Your task to perform on an android device: change text size in settings app Image 0: 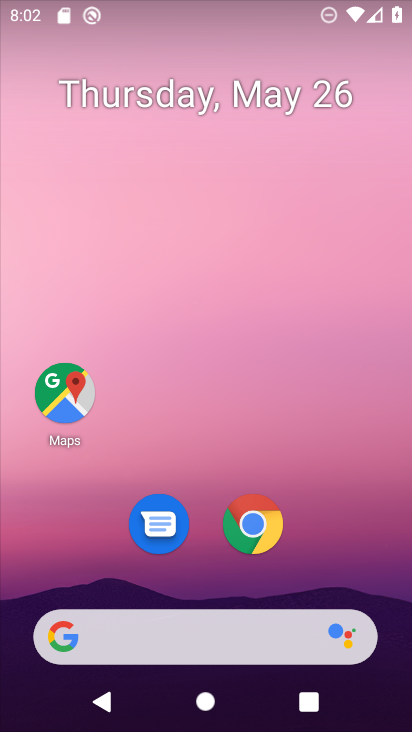
Step 0: drag from (228, 453) to (229, 33)
Your task to perform on an android device: change text size in settings app Image 1: 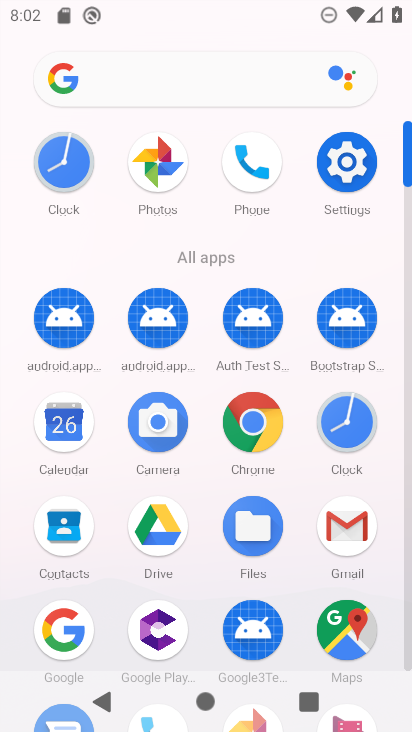
Step 1: click (349, 161)
Your task to perform on an android device: change text size in settings app Image 2: 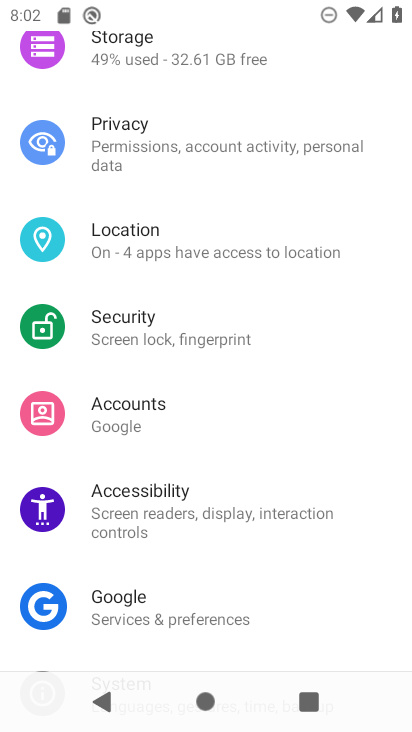
Step 2: drag from (202, 196) to (228, 420)
Your task to perform on an android device: change text size in settings app Image 3: 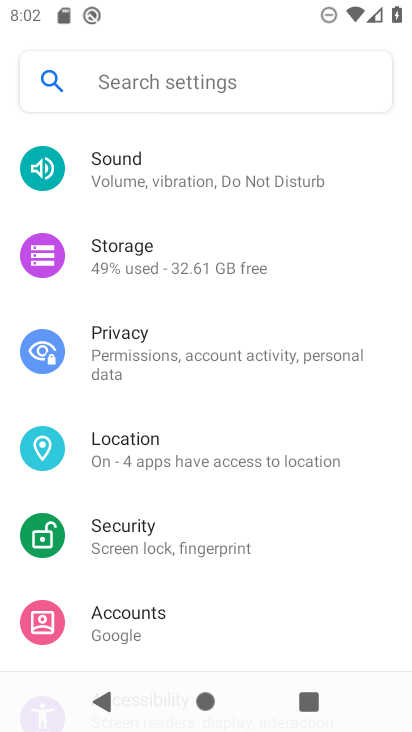
Step 3: drag from (254, 245) to (223, 493)
Your task to perform on an android device: change text size in settings app Image 4: 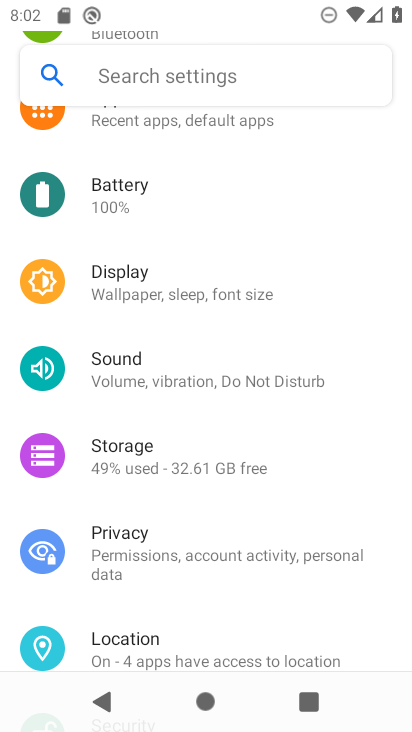
Step 4: click (207, 280)
Your task to perform on an android device: change text size in settings app Image 5: 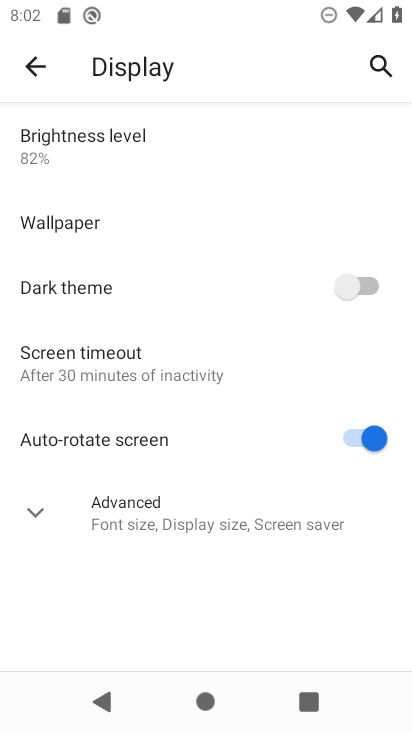
Step 5: click (37, 505)
Your task to perform on an android device: change text size in settings app Image 6: 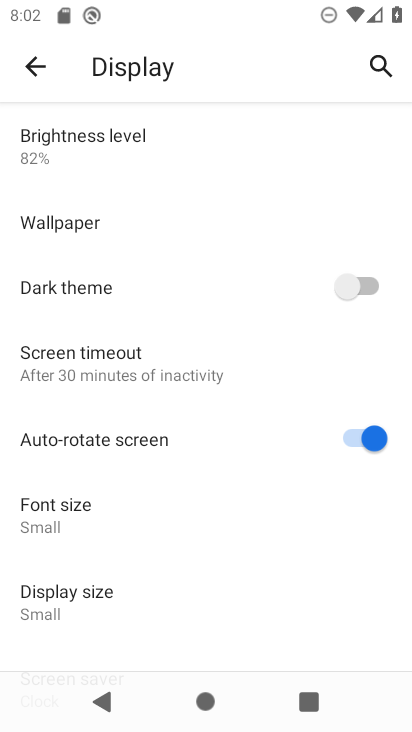
Step 6: click (100, 516)
Your task to perform on an android device: change text size in settings app Image 7: 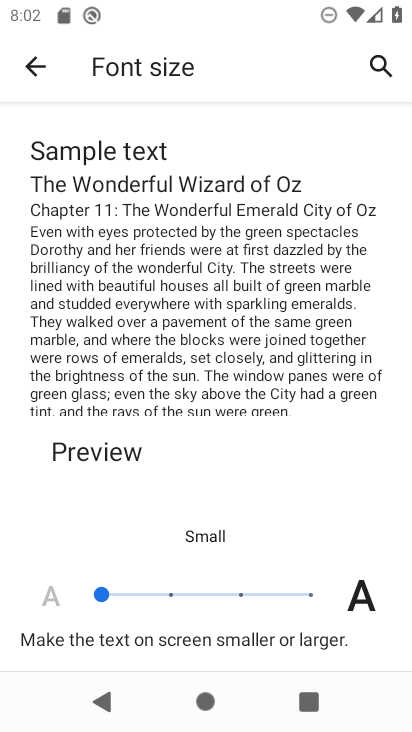
Step 7: click (170, 586)
Your task to perform on an android device: change text size in settings app Image 8: 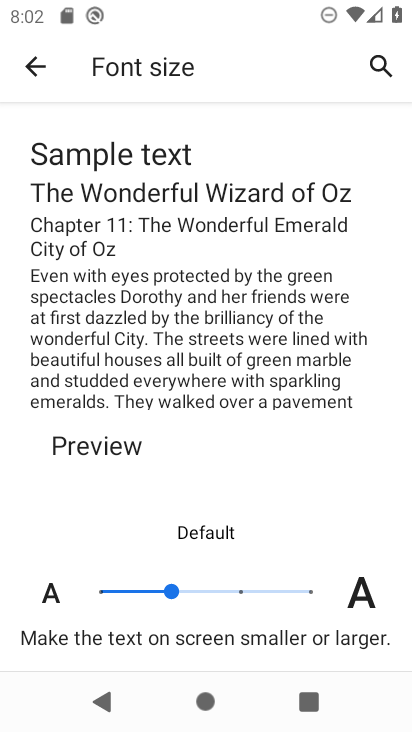
Step 8: click (35, 58)
Your task to perform on an android device: change text size in settings app Image 9: 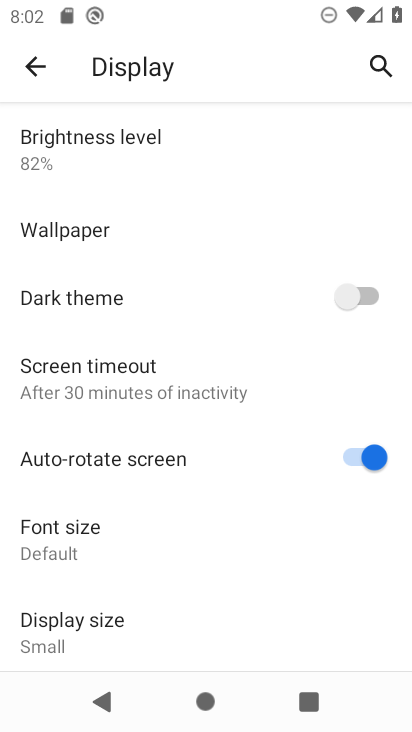
Step 9: task complete